Your task to perform on an android device: Open wifi settings Image 0: 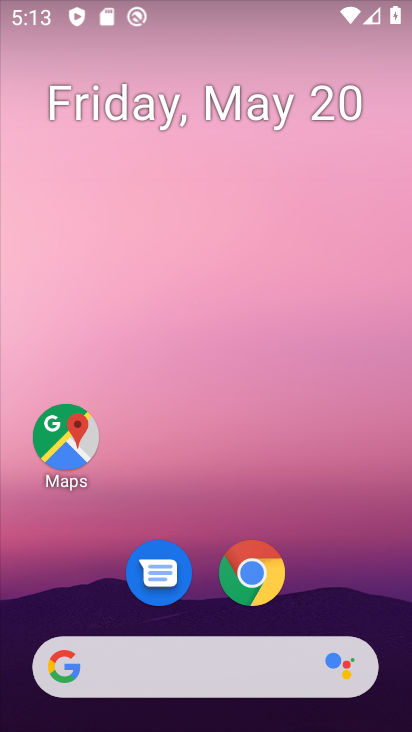
Step 0: drag from (326, 465) to (141, 5)
Your task to perform on an android device: Open wifi settings Image 1: 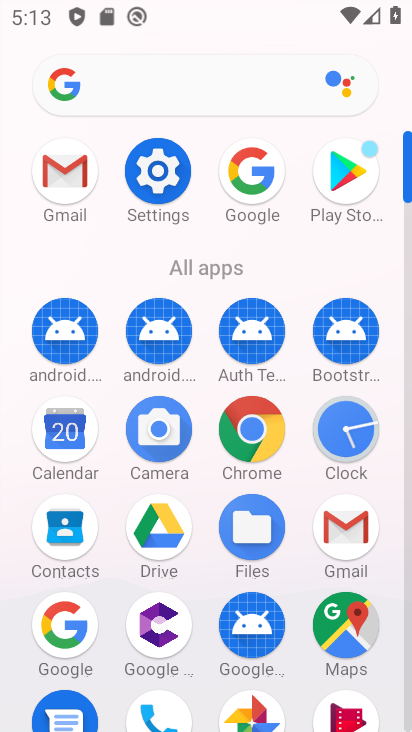
Step 1: click (172, 172)
Your task to perform on an android device: Open wifi settings Image 2: 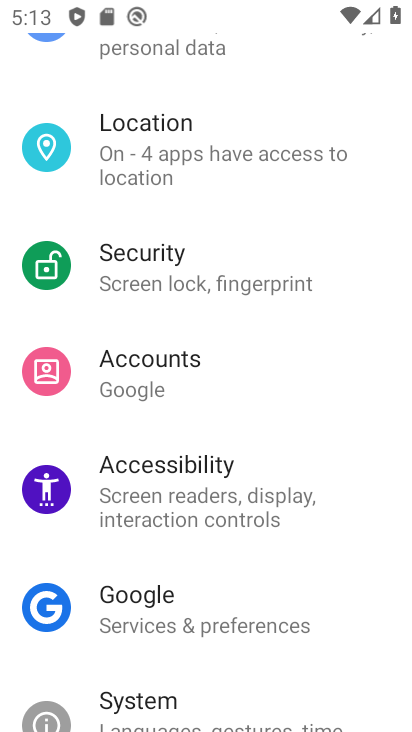
Step 2: drag from (273, 181) to (189, 682)
Your task to perform on an android device: Open wifi settings Image 3: 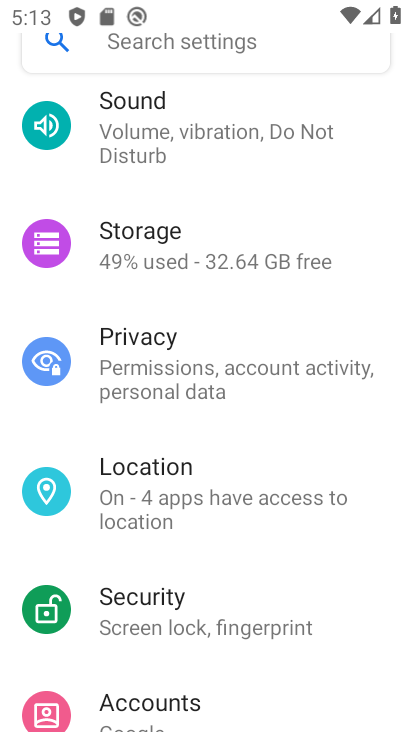
Step 3: drag from (224, 213) to (161, 725)
Your task to perform on an android device: Open wifi settings Image 4: 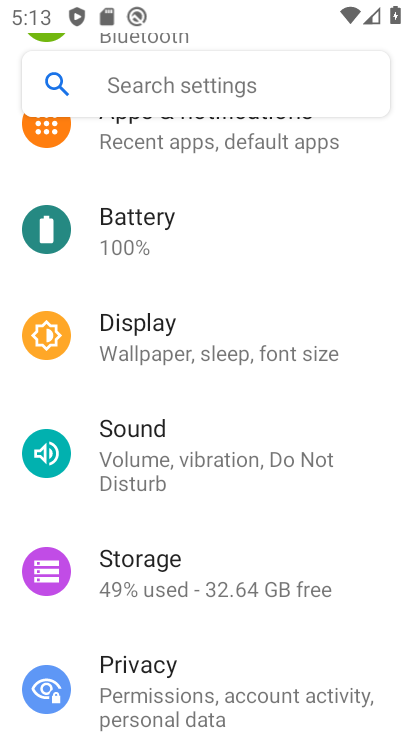
Step 4: drag from (206, 302) to (155, 725)
Your task to perform on an android device: Open wifi settings Image 5: 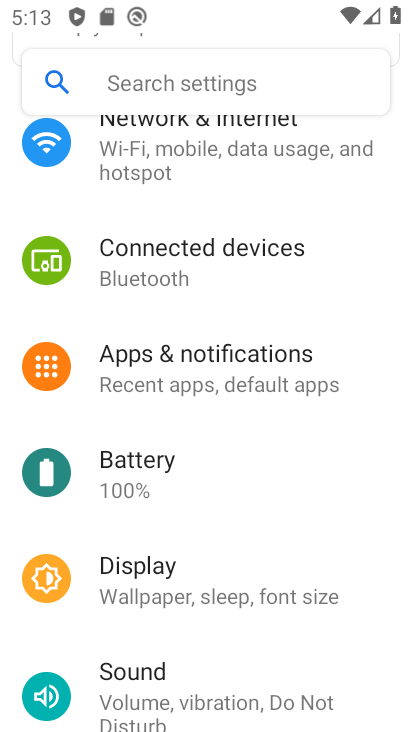
Step 5: click (182, 169)
Your task to perform on an android device: Open wifi settings Image 6: 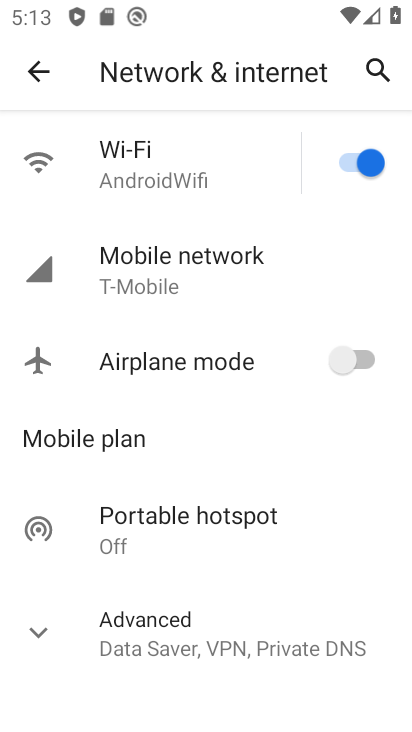
Step 6: click (243, 167)
Your task to perform on an android device: Open wifi settings Image 7: 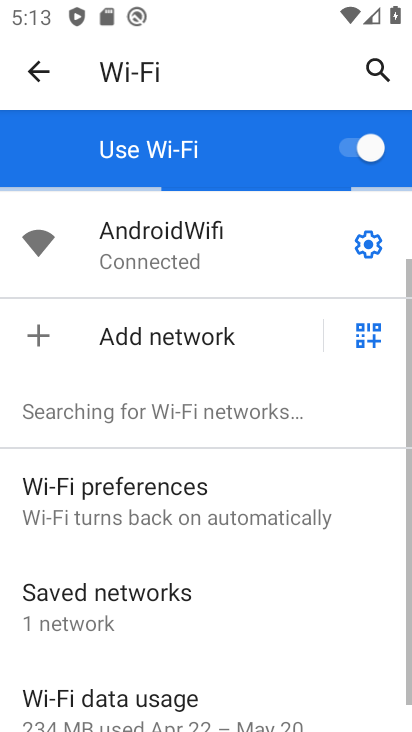
Step 7: task complete